Your task to perform on an android device: Search for seafood restaurants on Google Maps Image 0: 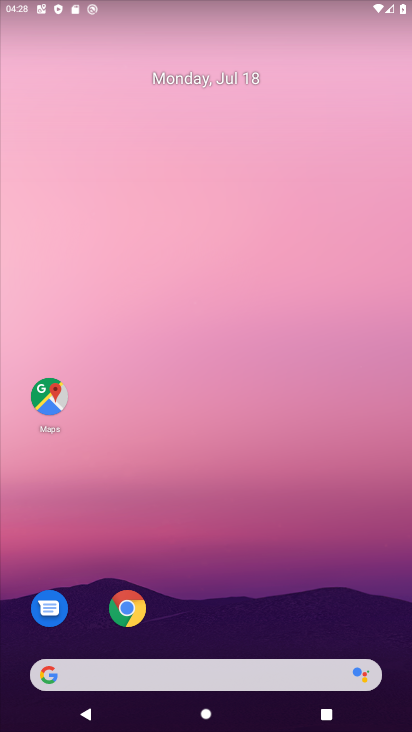
Step 0: click (44, 401)
Your task to perform on an android device: Search for seafood restaurants on Google Maps Image 1: 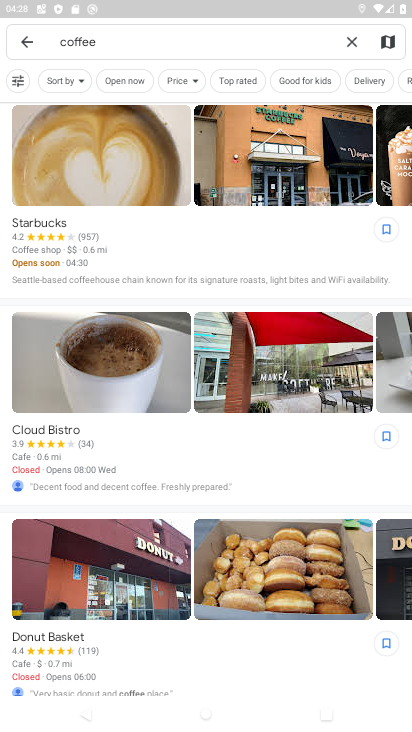
Step 1: click (131, 43)
Your task to perform on an android device: Search for seafood restaurants on Google Maps Image 2: 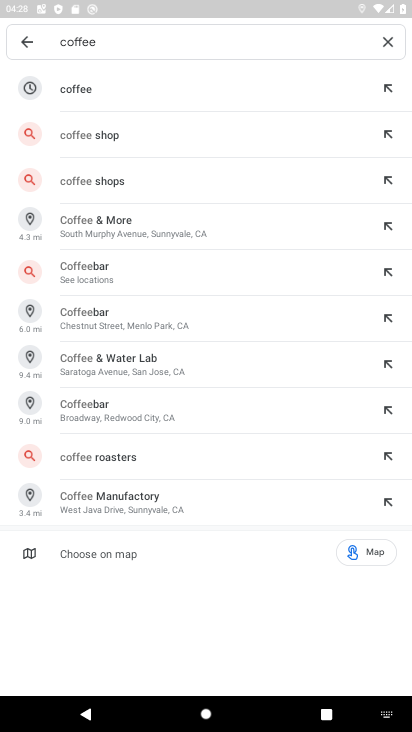
Step 2: click (386, 38)
Your task to perform on an android device: Search for seafood restaurants on Google Maps Image 3: 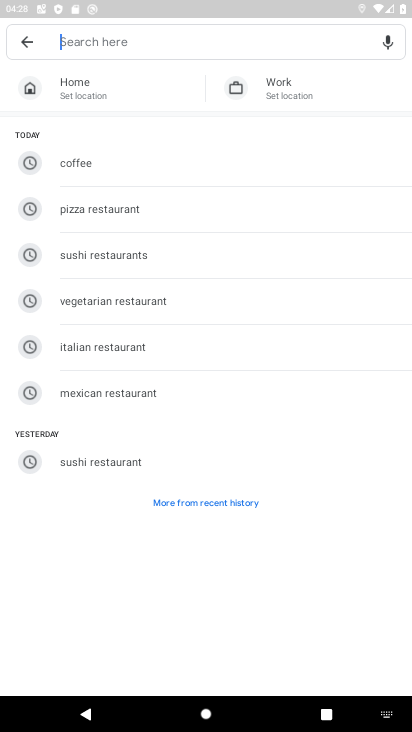
Step 3: type "seafood restaurants"
Your task to perform on an android device: Search for seafood restaurants on Google Maps Image 4: 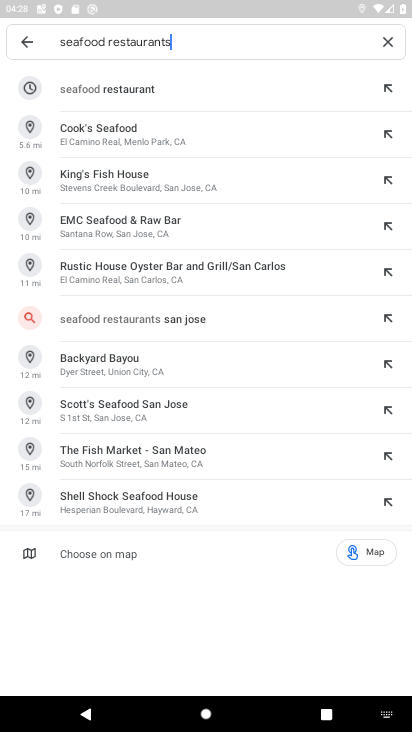
Step 4: click (135, 90)
Your task to perform on an android device: Search for seafood restaurants on Google Maps Image 5: 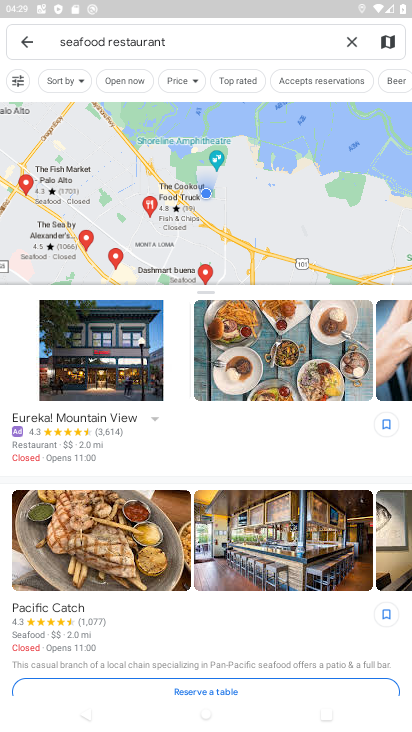
Step 5: task complete